Your task to perform on an android device: uninstall "DoorDash - Food Delivery" Image 0: 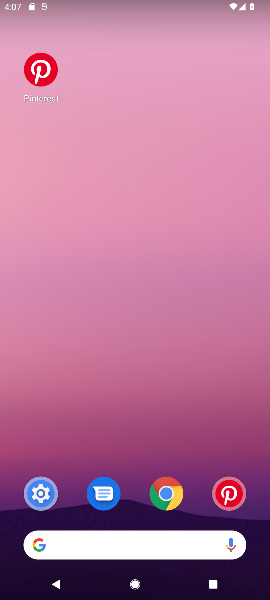
Step 0: drag from (138, 503) to (169, 298)
Your task to perform on an android device: uninstall "DoorDash - Food Delivery" Image 1: 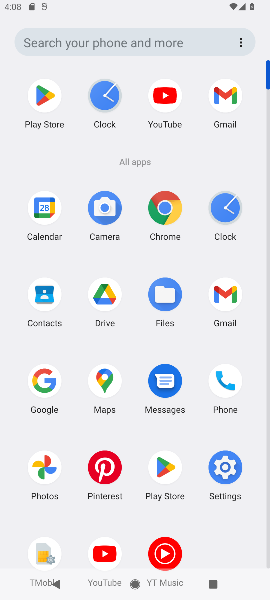
Step 1: click (162, 474)
Your task to perform on an android device: uninstall "DoorDash - Food Delivery" Image 2: 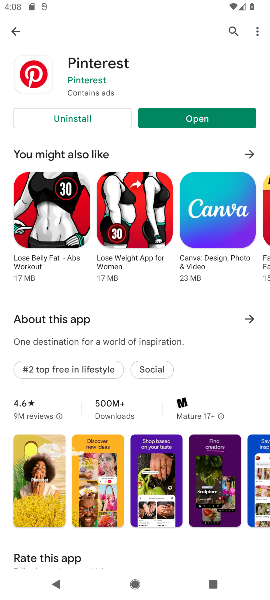
Step 2: click (233, 27)
Your task to perform on an android device: uninstall "DoorDash - Food Delivery" Image 3: 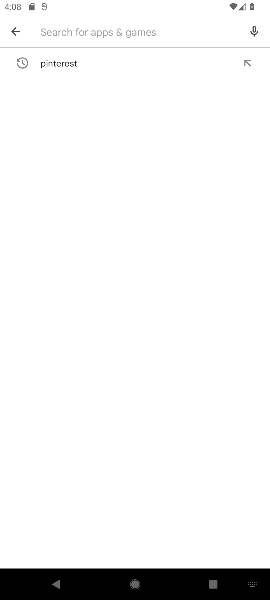
Step 3: type "DoorDash - Food Delivery"
Your task to perform on an android device: uninstall "DoorDash - Food Delivery" Image 4: 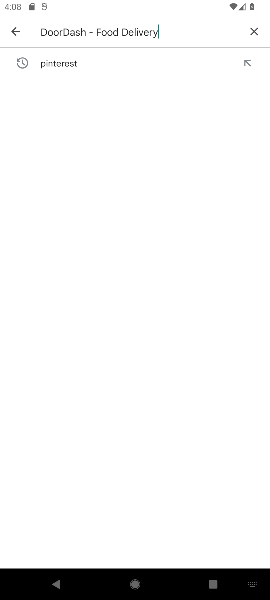
Step 4: type ""
Your task to perform on an android device: uninstall "DoorDash - Food Delivery" Image 5: 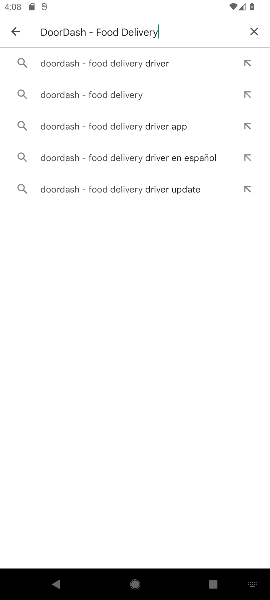
Step 5: click (126, 62)
Your task to perform on an android device: uninstall "DoorDash - Food Delivery" Image 6: 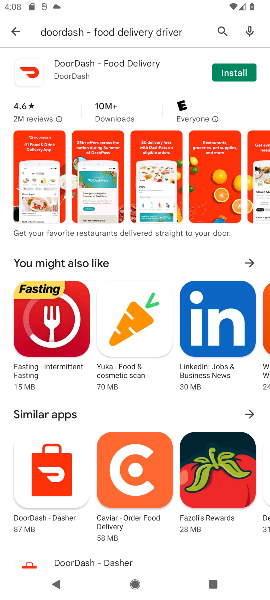
Step 6: click (139, 71)
Your task to perform on an android device: uninstall "DoorDash - Food Delivery" Image 7: 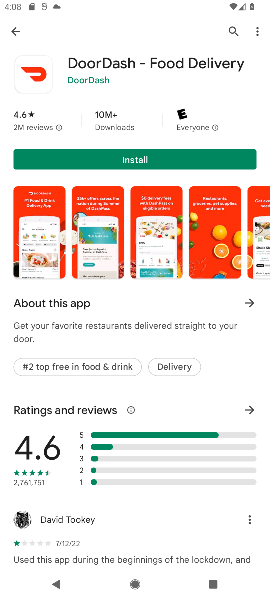
Step 7: task complete